Your task to perform on an android device: Go to accessibility settings Image 0: 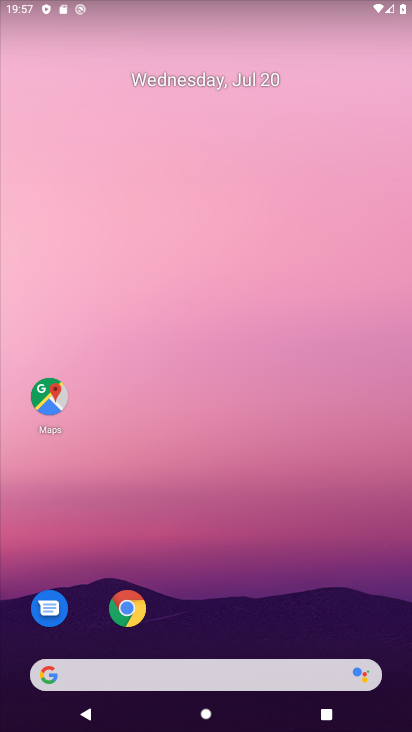
Step 0: drag from (204, 492) to (221, 5)
Your task to perform on an android device: Go to accessibility settings Image 1: 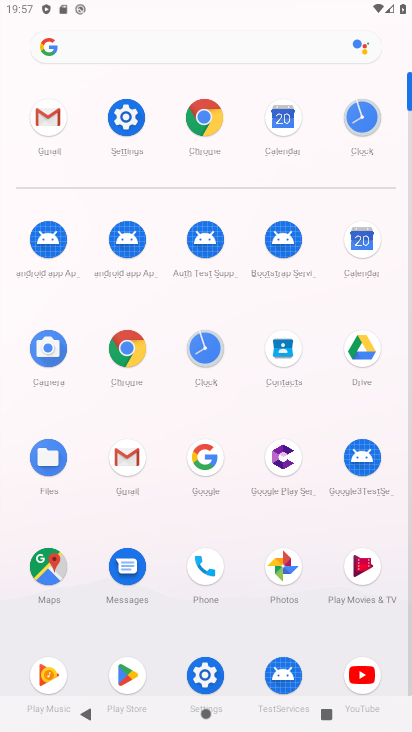
Step 1: click (114, 114)
Your task to perform on an android device: Go to accessibility settings Image 2: 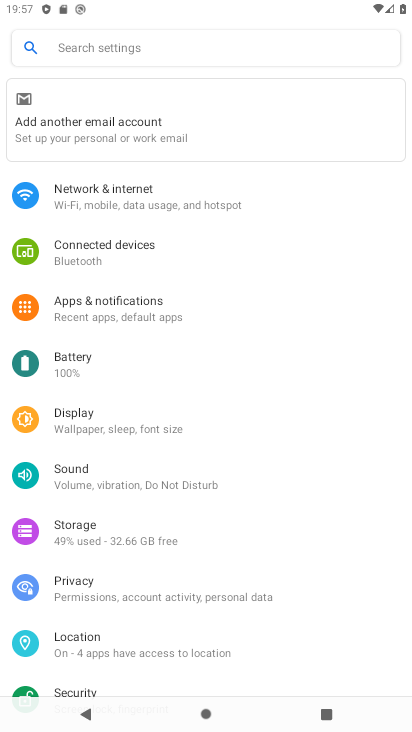
Step 2: drag from (167, 542) to (278, 110)
Your task to perform on an android device: Go to accessibility settings Image 3: 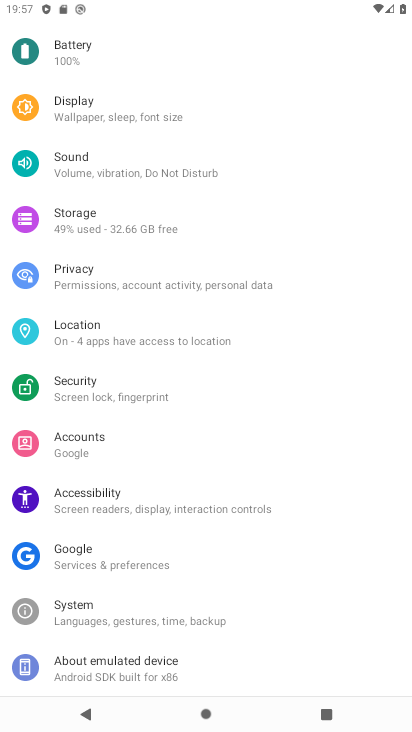
Step 3: click (167, 513)
Your task to perform on an android device: Go to accessibility settings Image 4: 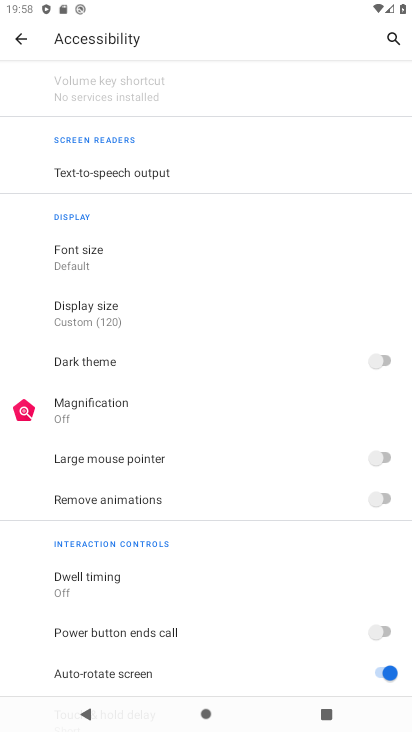
Step 4: task complete